Your task to perform on an android device: change text size in settings app Image 0: 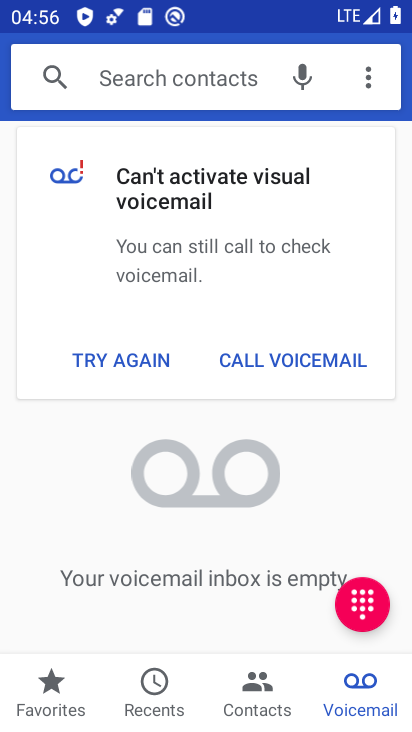
Step 0: press home button
Your task to perform on an android device: change text size in settings app Image 1: 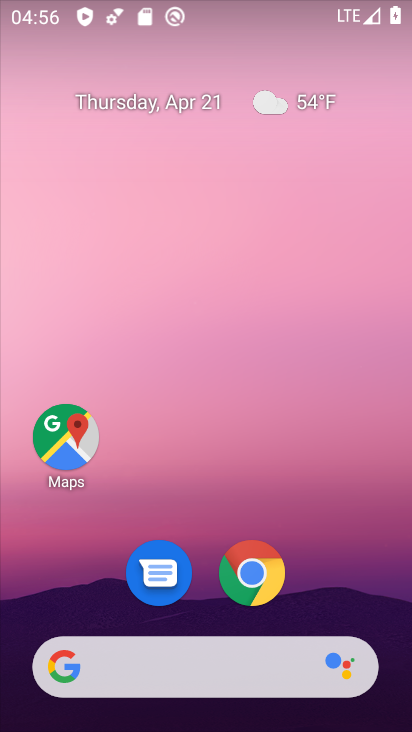
Step 1: drag from (348, 607) to (248, 125)
Your task to perform on an android device: change text size in settings app Image 2: 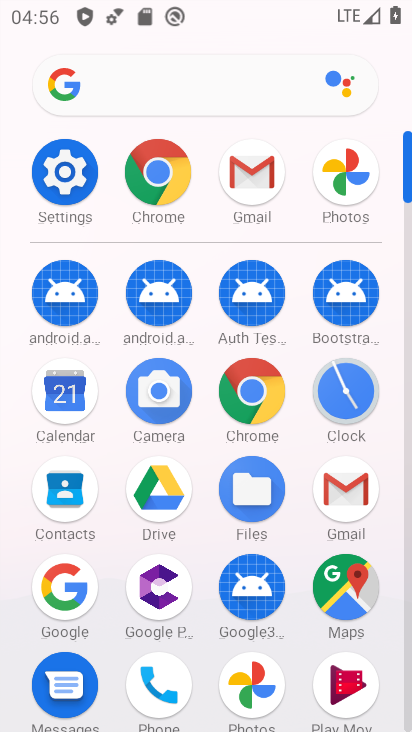
Step 2: click (406, 690)
Your task to perform on an android device: change text size in settings app Image 3: 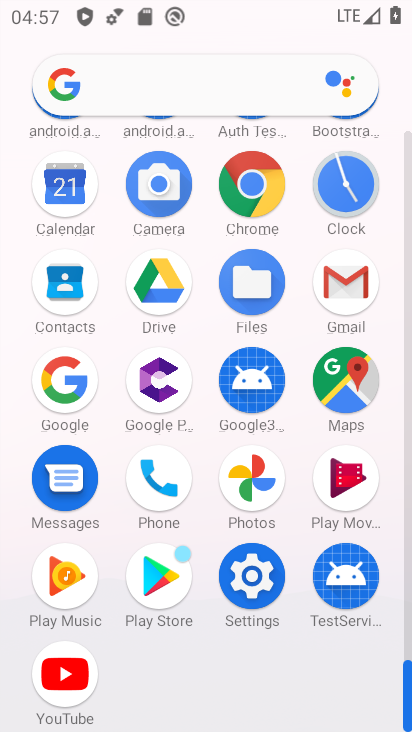
Step 3: click (253, 576)
Your task to perform on an android device: change text size in settings app Image 4: 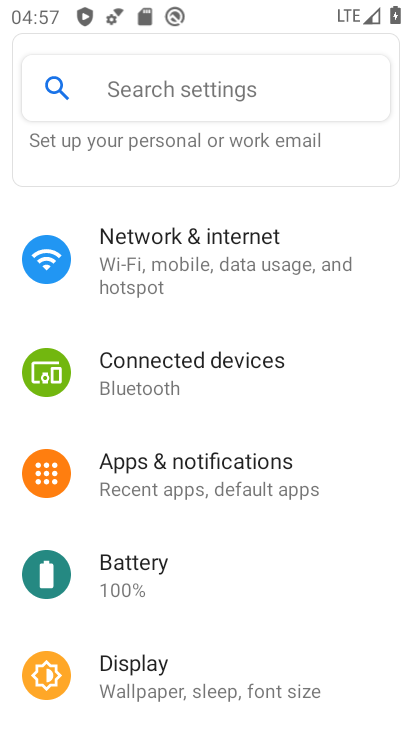
Step 4: click (195, 684)
Your task to perform on an android device: change text size in settings app Image 5: 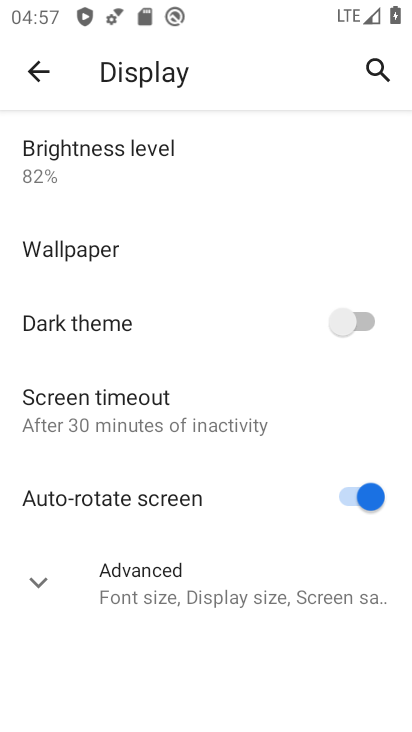
Step 5: click (32, 583)
Your task to perform on an android device: change text size in settings app Image 6: 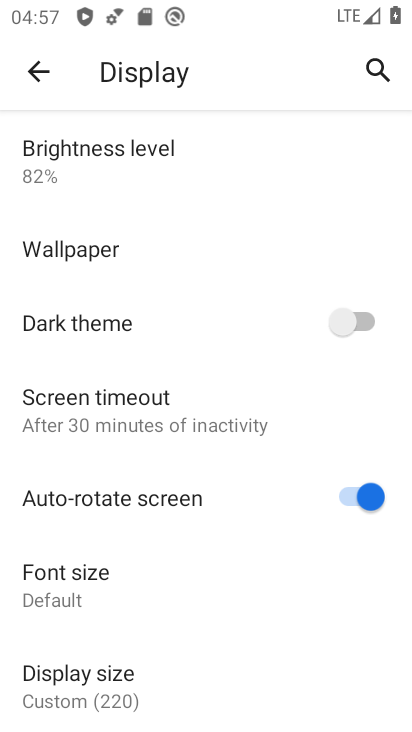
Step 6: click (36, 574)
Your task to perform on an android device: change text size in settings app Image 7: 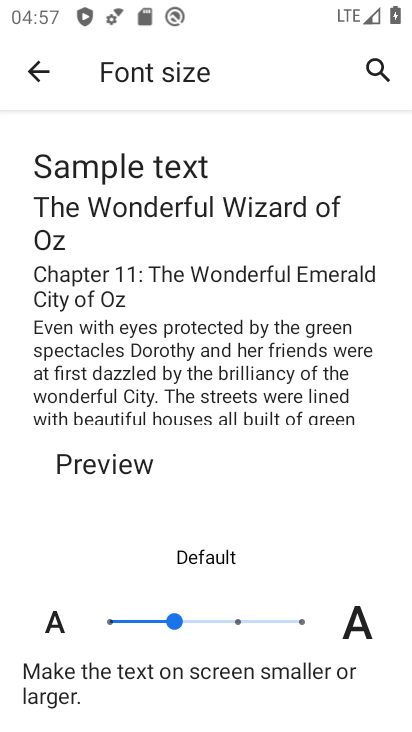
Step 7: click (233, 621)
Your task to perform on an android device: change text size in settings app Image 8: 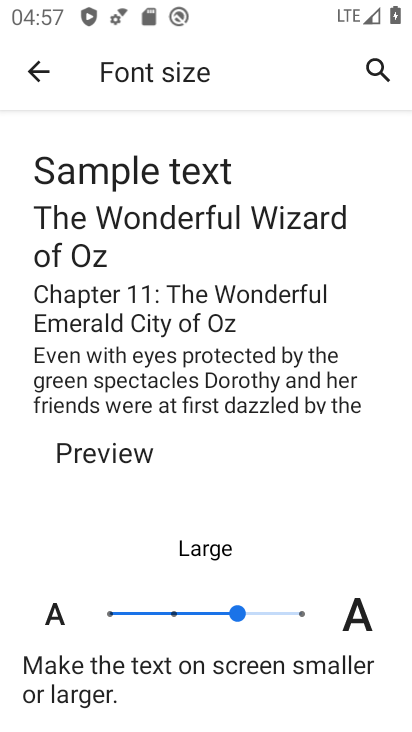
Step 8: task complete